Your task to perform on an android device: Go to Yahoo.com Image 0: 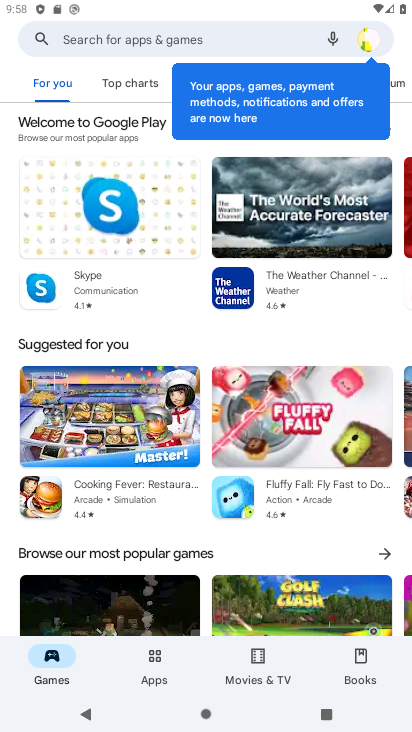
Step 0: press home button
Your task to perform on an android device: Go to Yahoo.com Image 1: 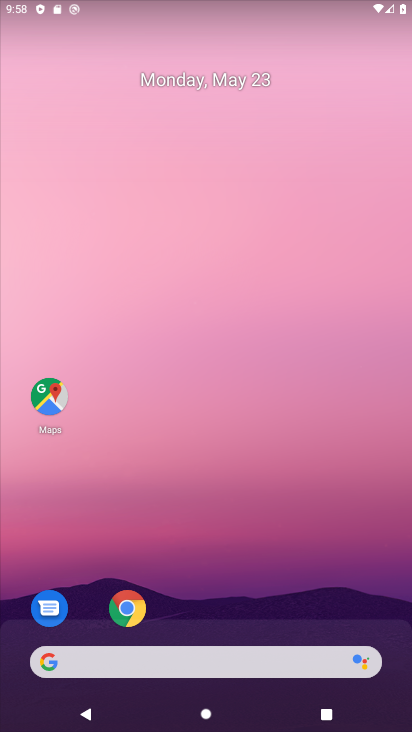
Step 1: click (127, 605)
Your task to perform on an android device: Go to Yahoo.com Image 2: 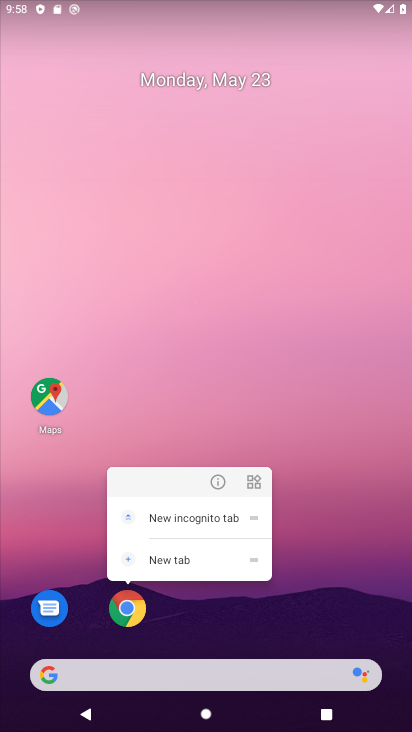
Step 2: click (141, 617)
Your task to perform on an android device: Go to Yahoo.com Image 3: 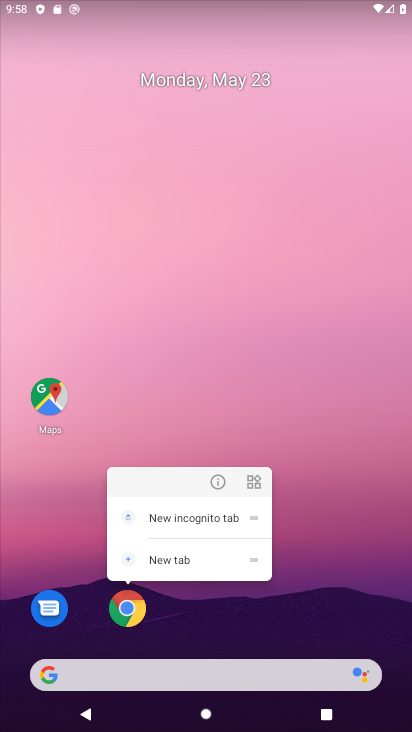
Step 3: click (131, 617)
Your task to perform on an android device: Go to Yahoo.com Image 4: 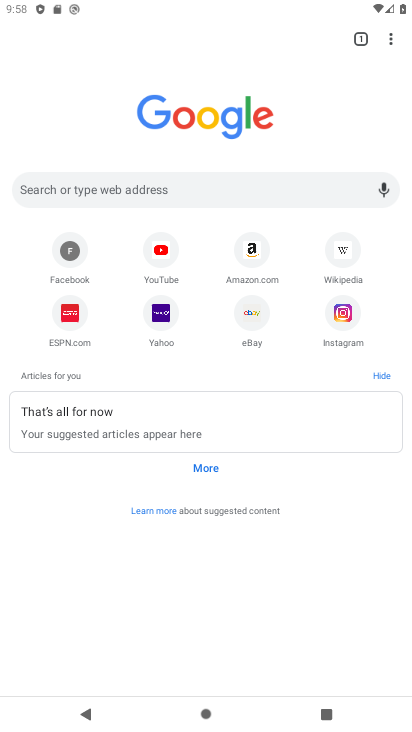
Step 4: click (168, 321)
Your task to perform on an android device: Go to Yahoo.com Image 5: 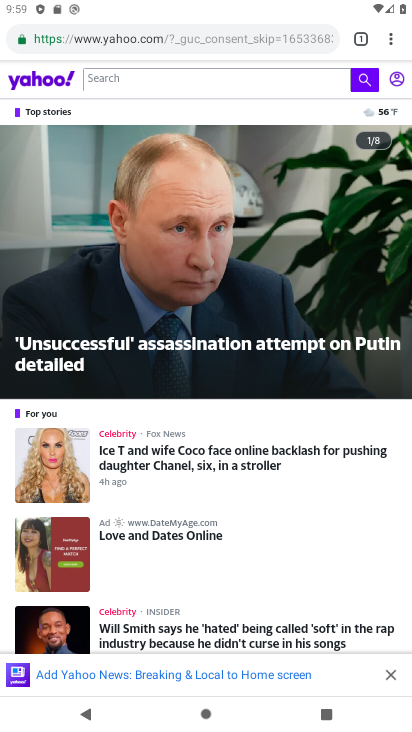
Step 5: task complete